Your task to perform on an android device: Find coffee shops on Maps Image 0: 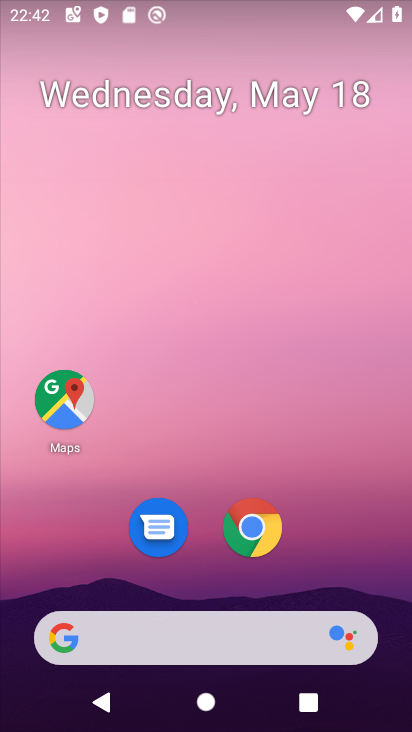
Step 0: click (57, 398)
Your task to perform on an android device: Find coffee shops on Maps Image 1: 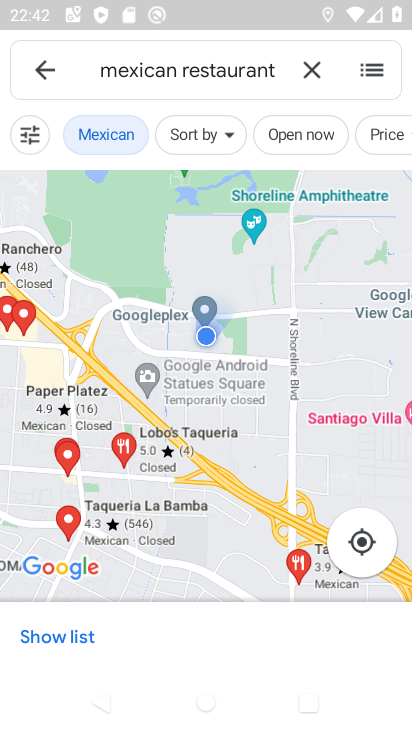
Step 1: click (205, 84)
Your task to perform on an android device: Find coffee shops on Maps Image 2: 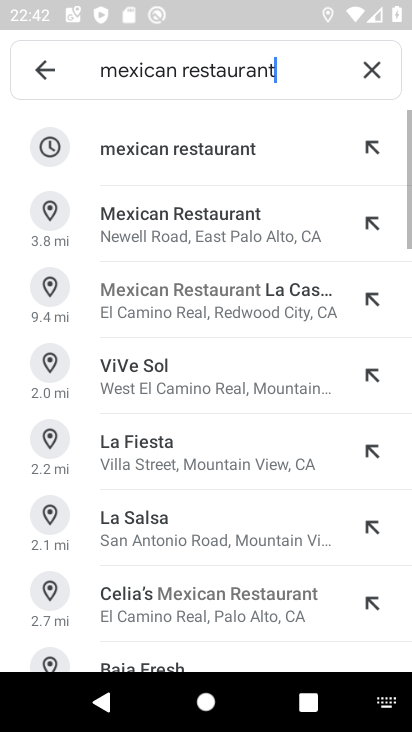
Step 2: click (364, 73)
Your task to perform on an android device: Find coffee shops on Maps Image 3: 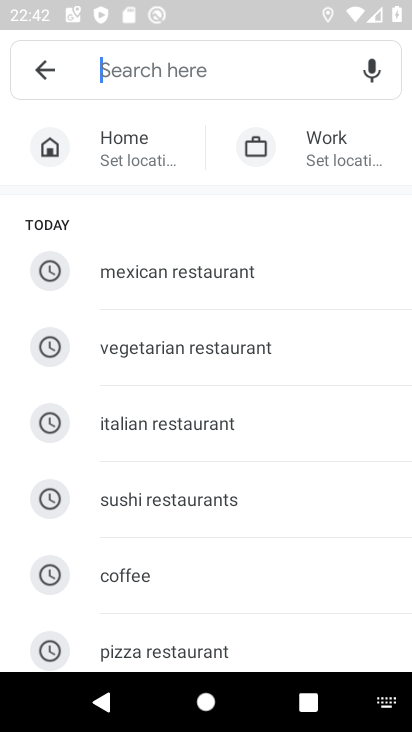
Step 3: click (212, 577)
Your task to perform on an android device: Find coffee shops on Maps Image 4: 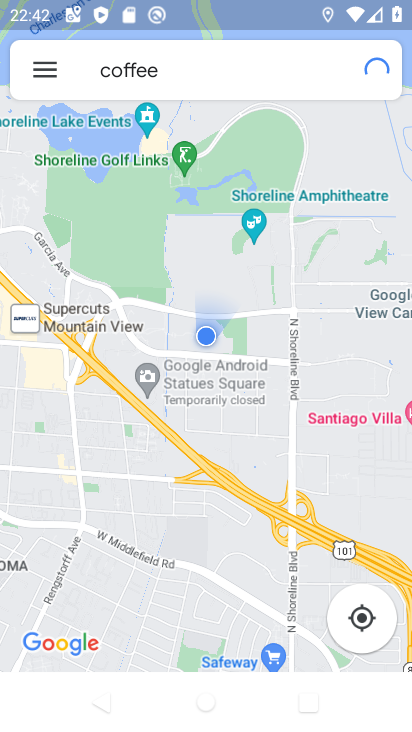
Step 4: task complete